Your task to perform on an android device: Is it going to rain tomorrow? Image 0: 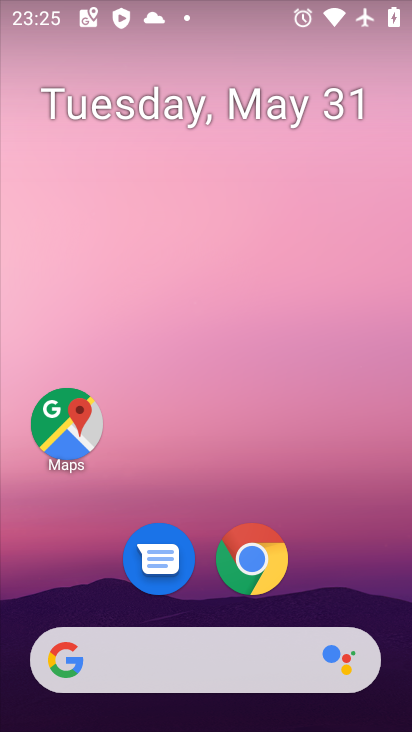
Step 0: drag from (333, 535) to (322, 66)
Your task to perform on an android device: Is it going to rain tomorrow? Image 1: 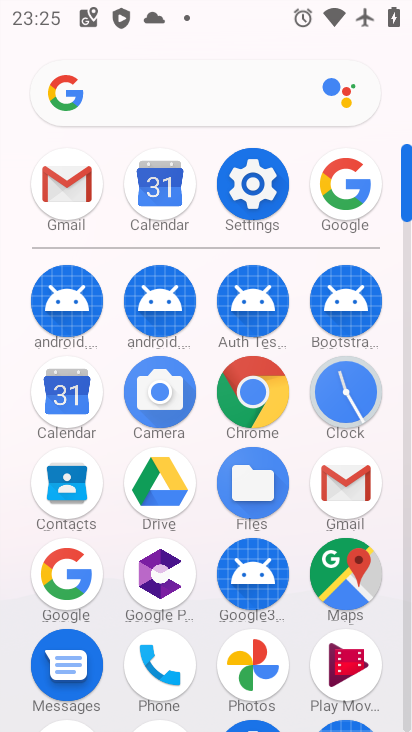
Step 1: click (349, 194)
Your task to perform on an android device: Is it going to rain tomorrow? Image 2: 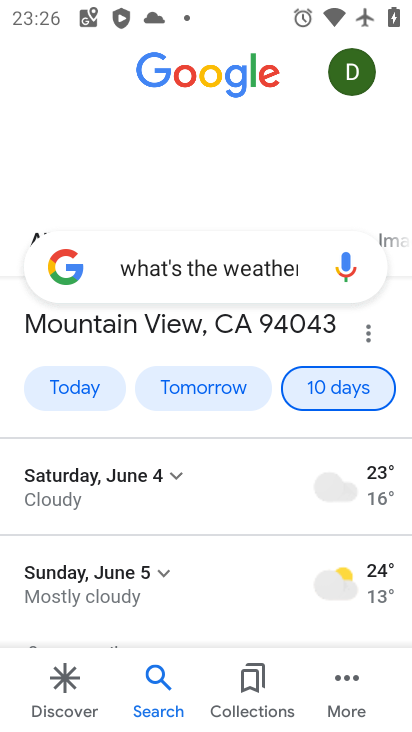
Step 2: click (278, 258)
Your task to perform on an android device: Is it going to rain tomorrow? Image 3: 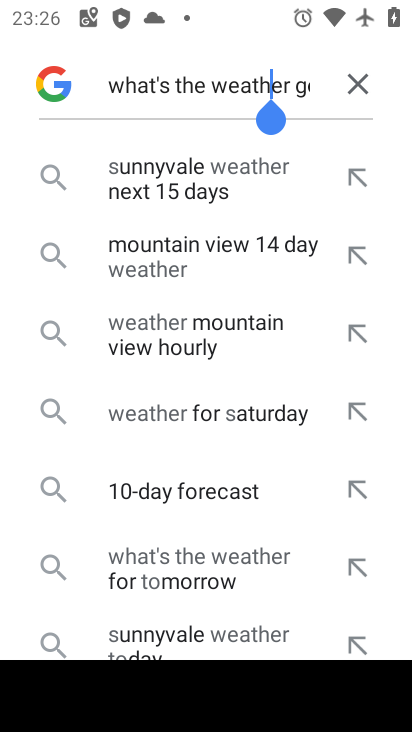
Step 3: click (351, 91)
Your task to perform on an android device: Is it going to rain tomorrow? Image 4: 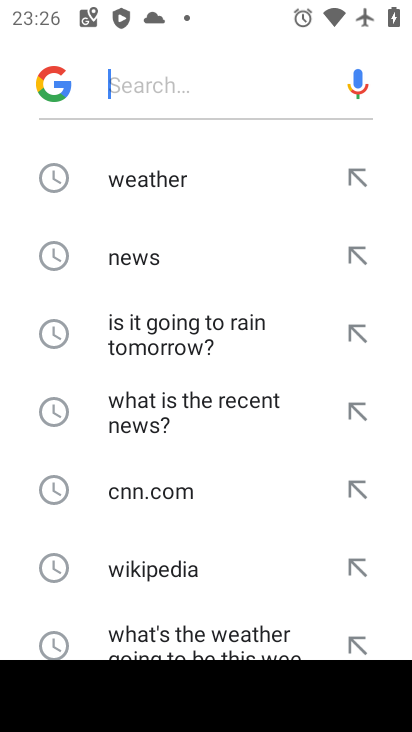
Step 4: click (181, 349)
Your task to perform on an android device: Is it going to rain tomorrow? Image 5: 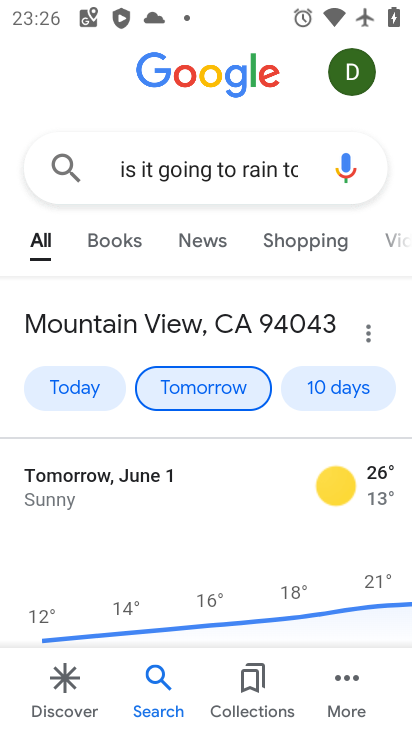
Step 5: task complete